Your task to perform on an android device: check out phone information Image 0: 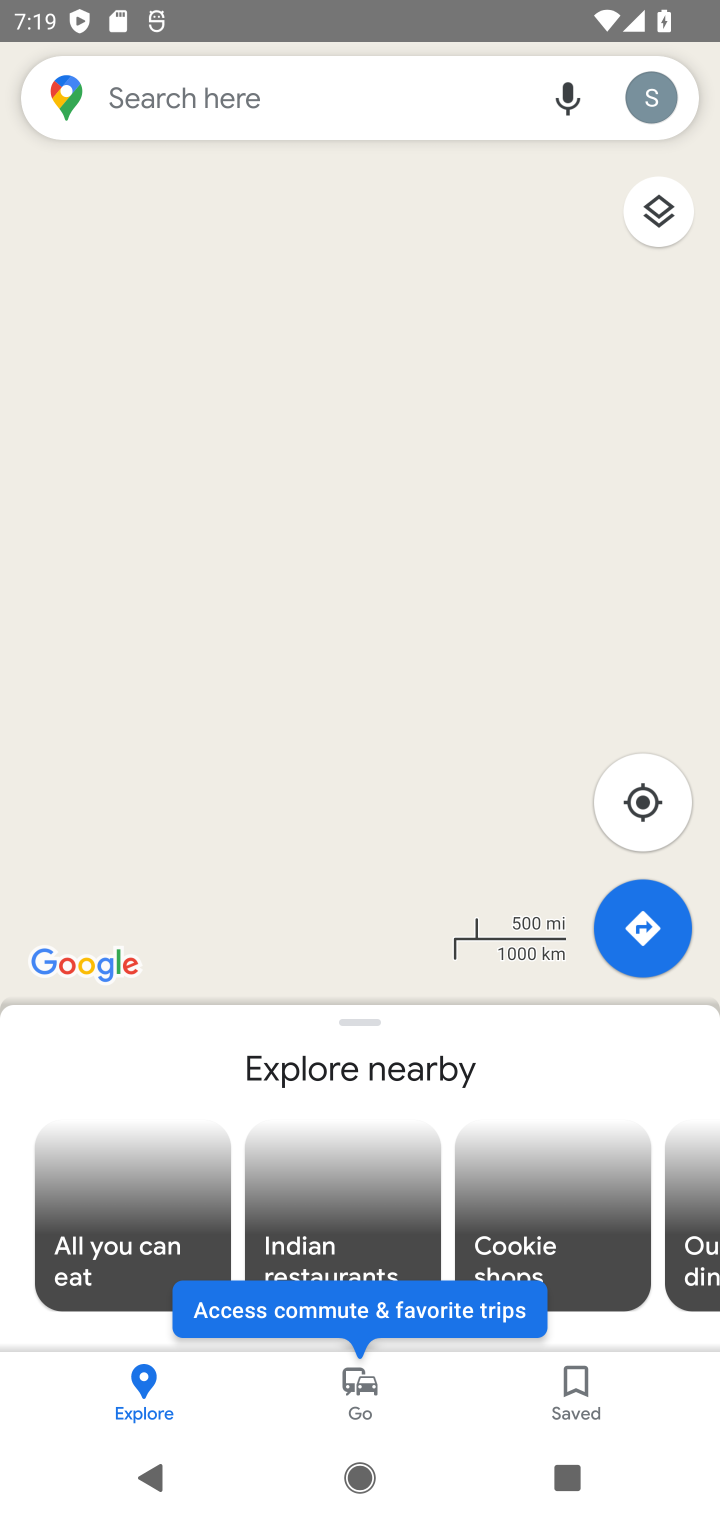
Step 0: press home button
Your task to perform on an android device: check out phone information Image 1: 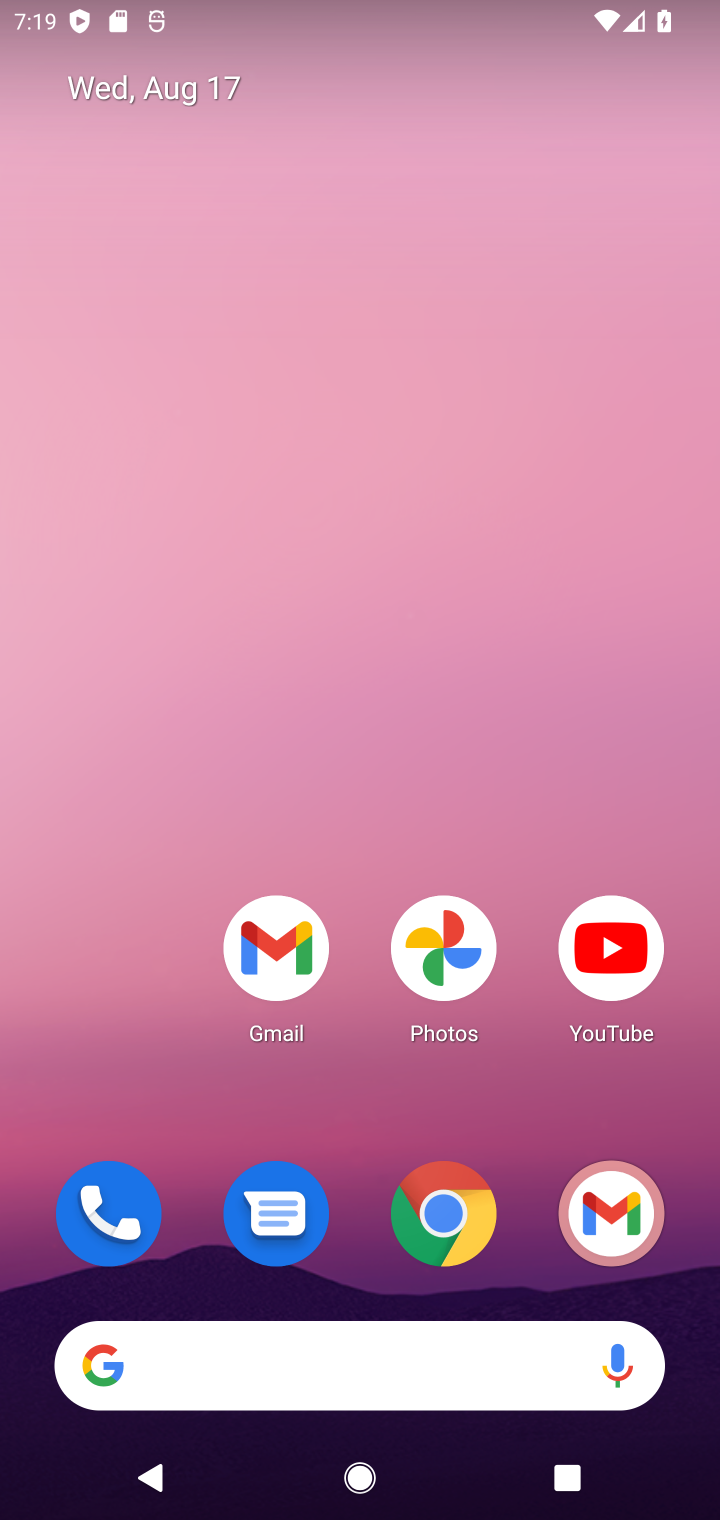
Step 1: drag from (372, 1295) to (450, 34)
Your task to perform on an android device: check out phone information Image 2: 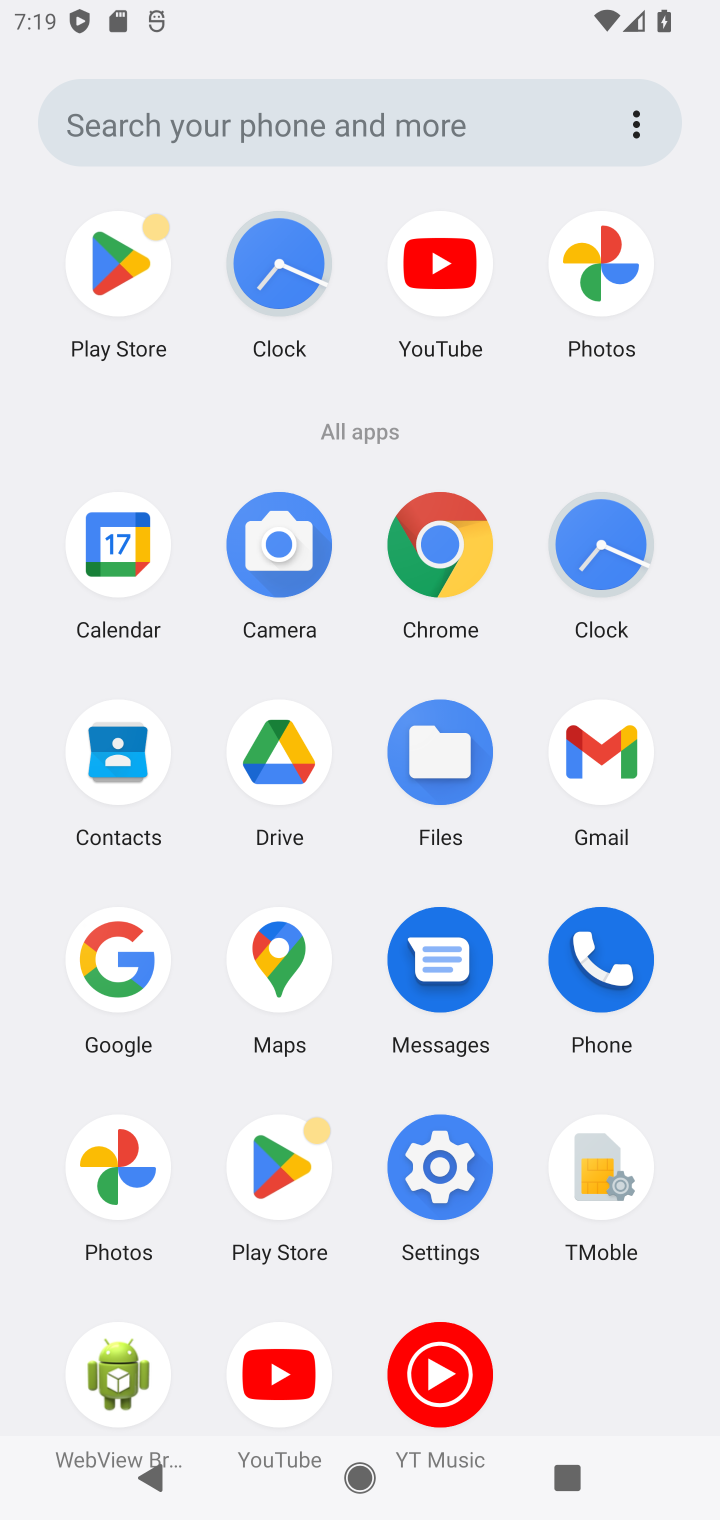
Step 2: click (432, 1180)
Your task to perform on an android device: check out phone information Image 3: 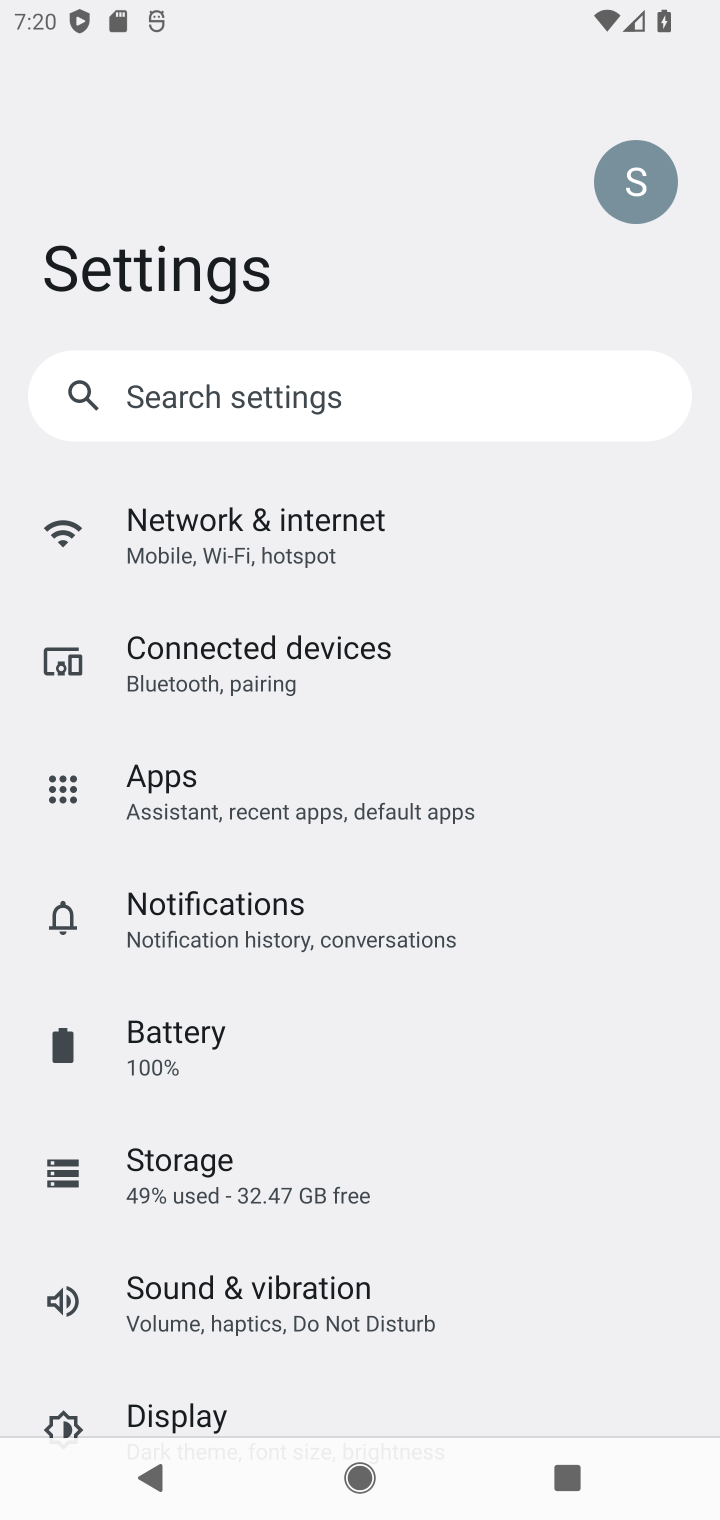
Step 3: task complete